Your task to perform on an android device: check out phone information Image 0: 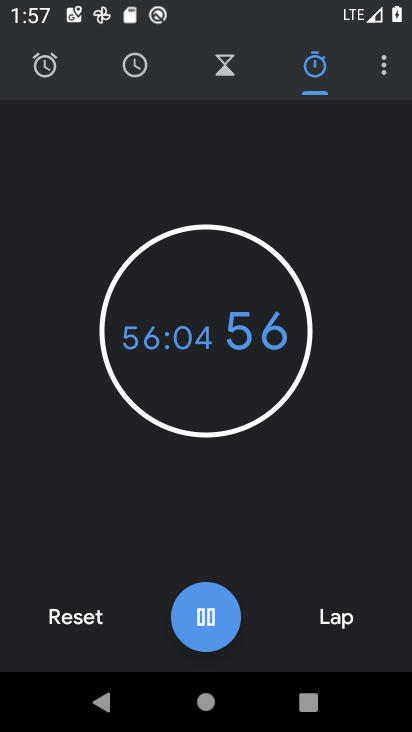
Step 0: press home button
Your task to perform on an android device: check out phone information Image 1: 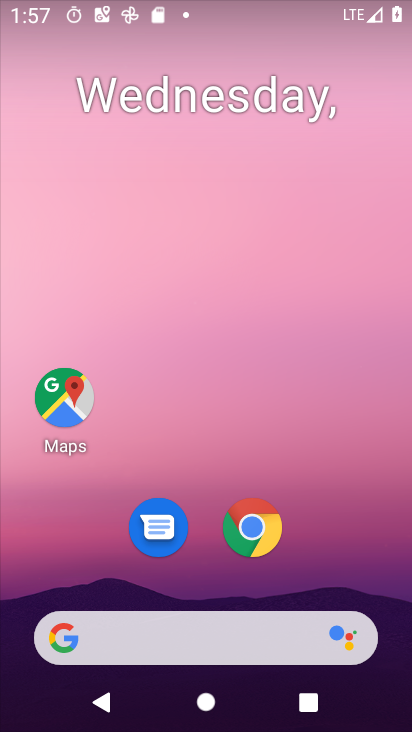
Step 1: drag from (219, 672) to (257, 61)
Your task to perform on an android device: check out phone information Image 2: 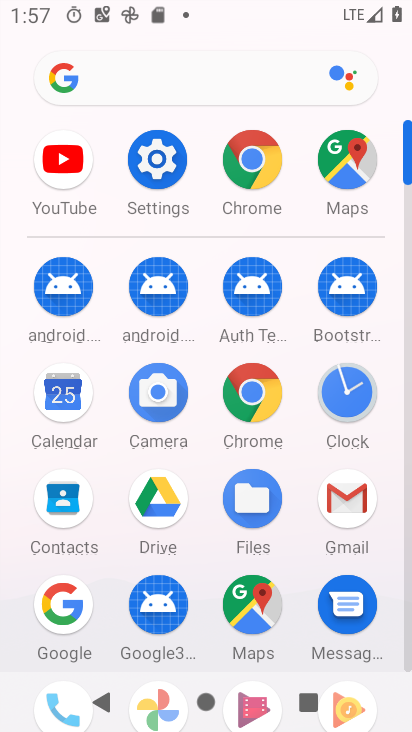
Step 2: click (184, 172)
Your task to perform on an android device: check out phone information Image 3: 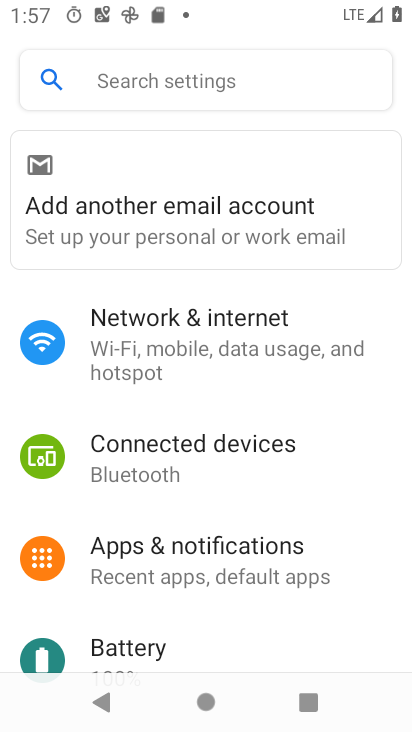
Step 3: drag from (270, 585) to (320, 60)
Your task to perform on an android device: check out phone information Image 4: 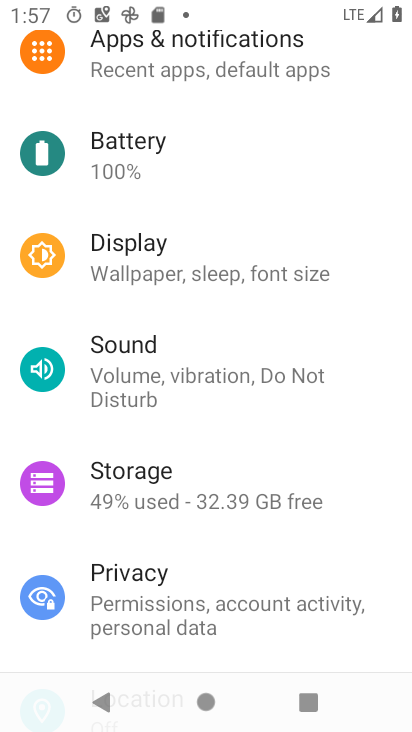
Step 4: drag from (282, 630) to (353, 145)
Your task to perform on an android device: check out phone information Image 5: 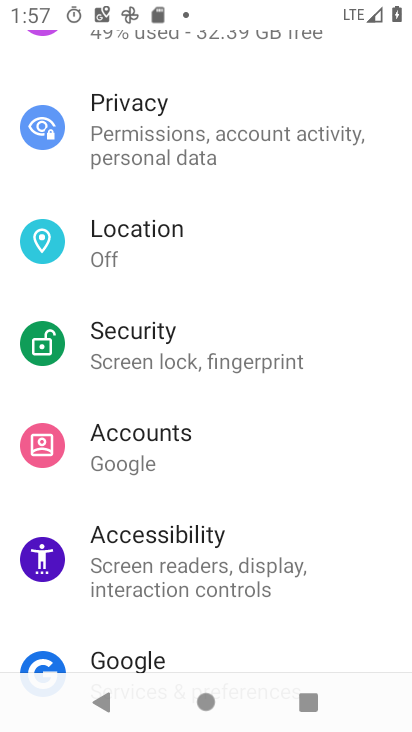
Step 5: drag from (262, 645) to (334, 147)
Your task to perform on an android device: check out phone information Image 6: 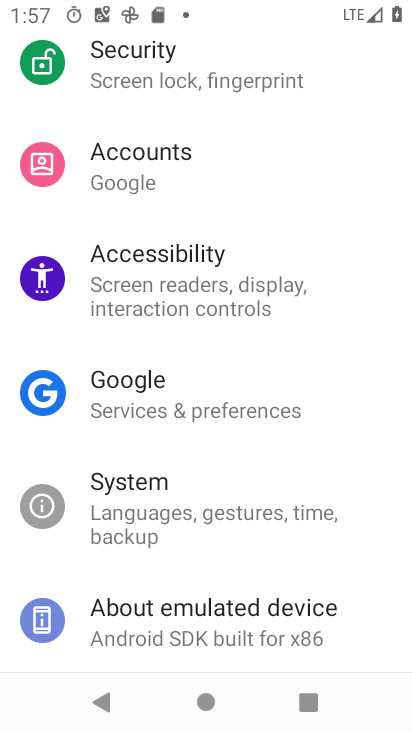
Step 6: drag from (241, 625) to (307, 183)
Your task to perform on an android device: check out phone information Image 7: 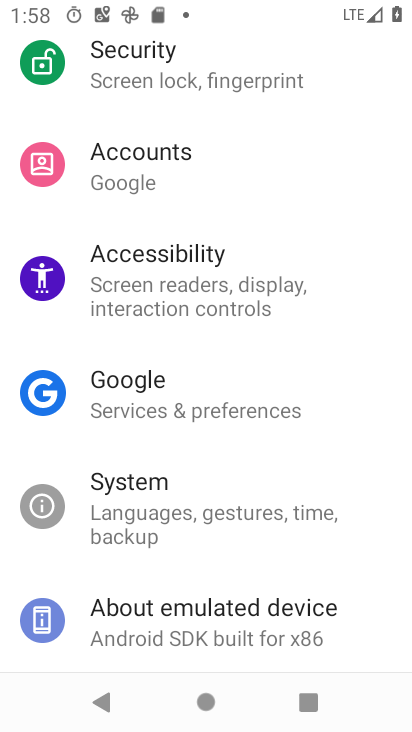
Step 7: click (263, 636)
Your task to perform on an android device: check out phone information Image 8: 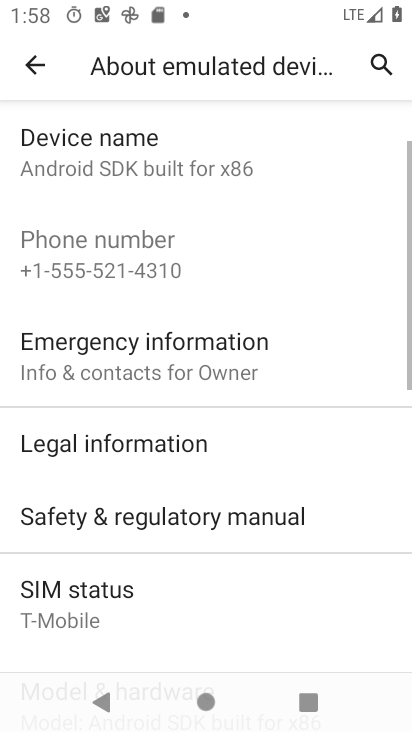
Step 8: task complete